Your task to perform on an android device: Open Wikipedia Image 0: 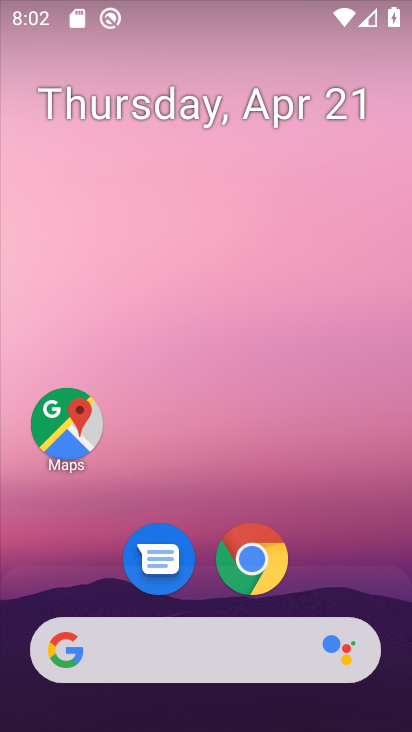
Step 0: click (270, 580)
Your task to perform on an android device: Open Wikipedia Image 1: 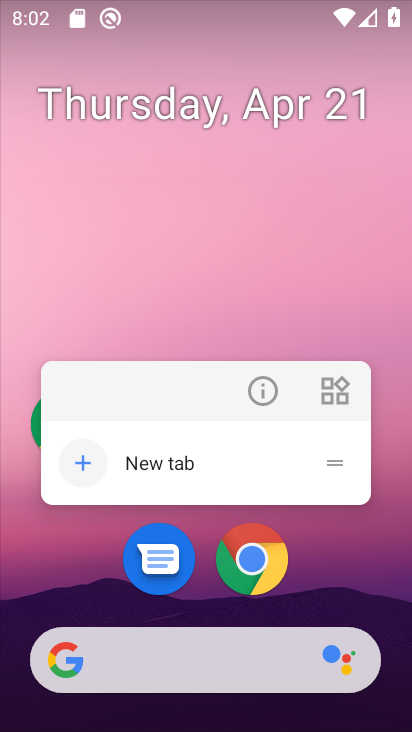
Step 1: click (251, 577)
Your task to perform on an android device: Open Wikipedia Image 2: 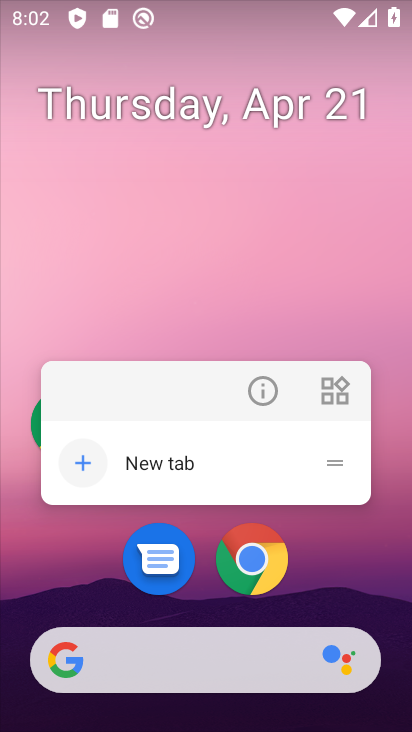
Step 2: click (250, 561)
Your task to perform on an android device: Open Wikipedia Image 3: 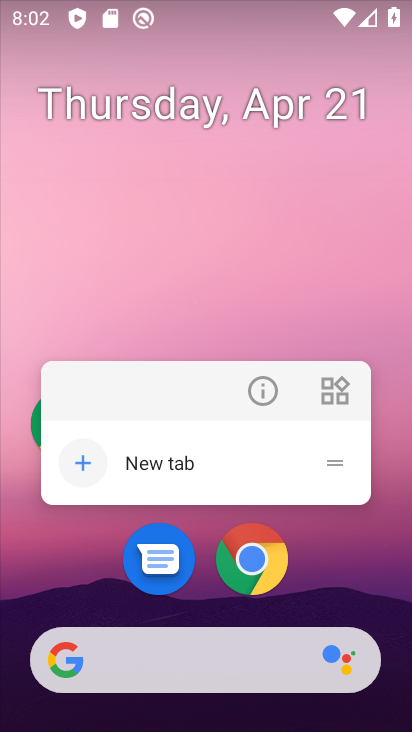
Step 3: click (252, 556)
Your task to perform on an android device: Open Wikipedia Image 4: 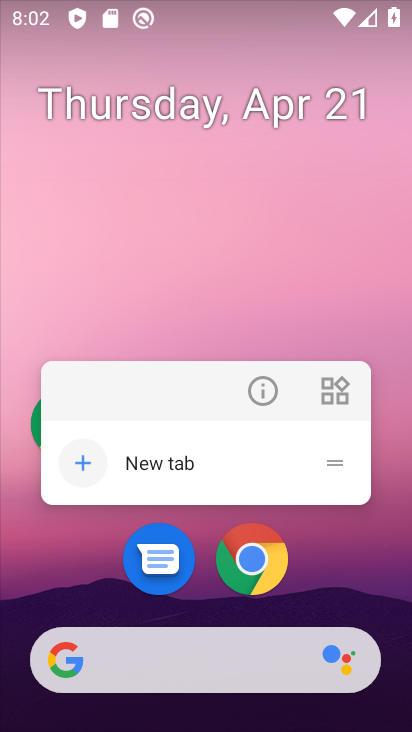
Step 4: click (251, 557)
Your task to perform on an android device: Open Wikipedia Image 5: 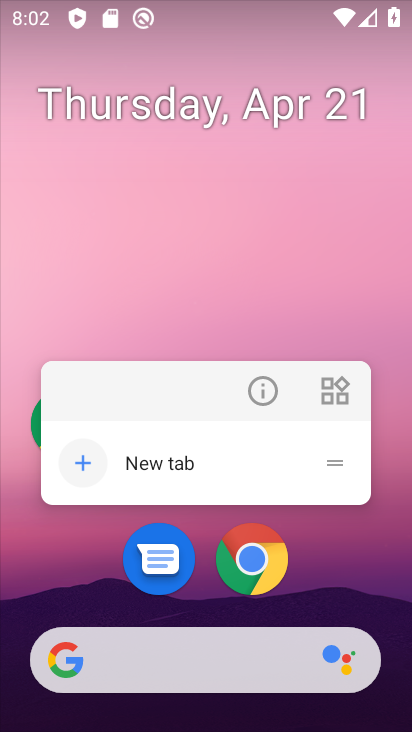
Step 5: click (259, 570)
Your task to perform on an android device: Open Wikipedia Image 6: 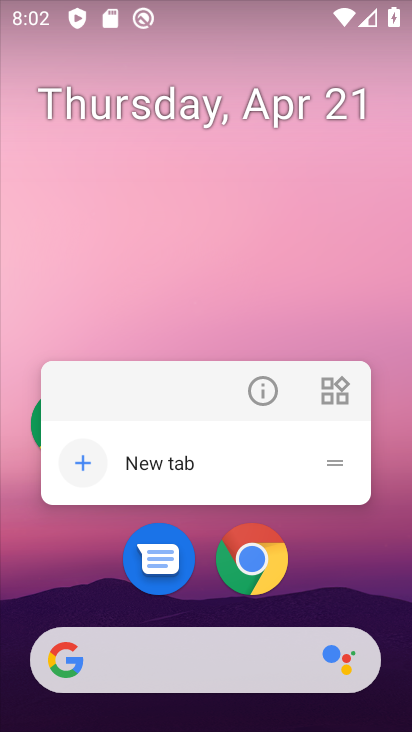
Step 6: click (254, 569)
Your task to perform on an android device: Open Wikipedia Image 7: 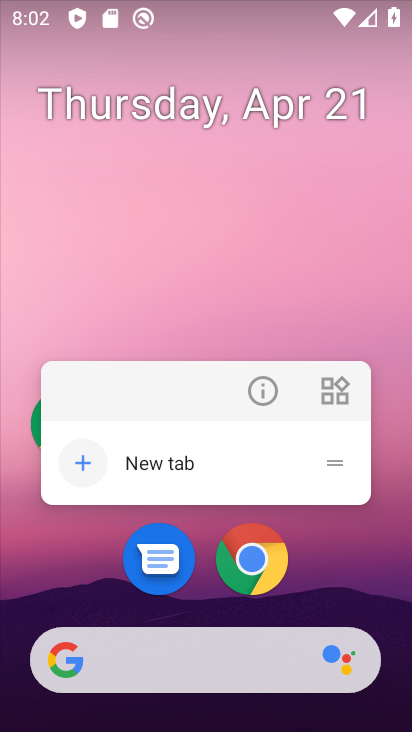
Step 7: click (282, 552)
Your task to perform on an android device: Open Wikipedia Image 8: 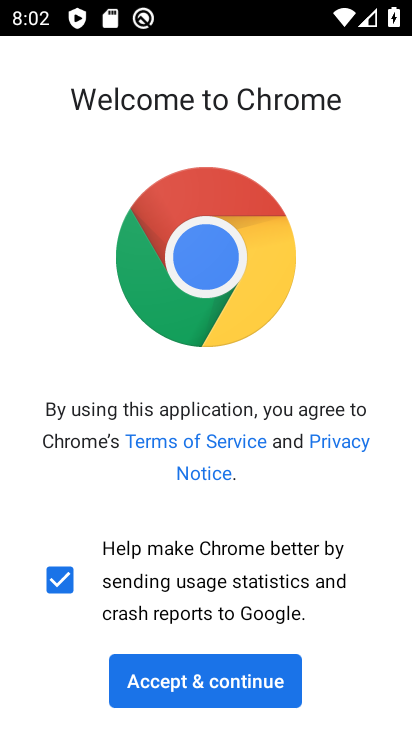
Step 8: click (250, 680)
Your task to perform on an android device: Open Wikipedia Image 9: 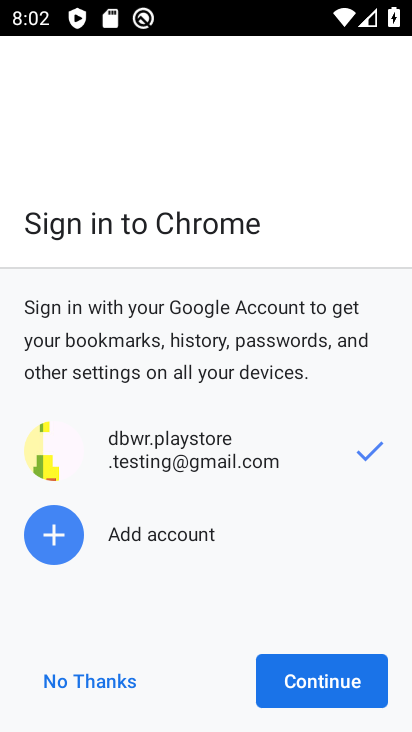
Step 9: click (323, 691)
Your task to perform on an android device: Open Wikipedia Image 10: 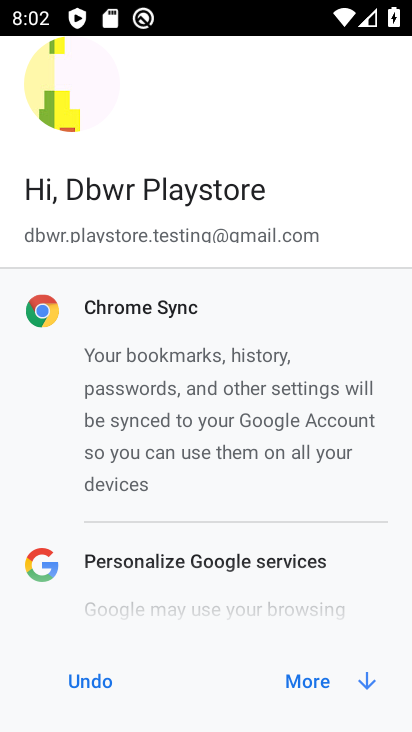
Step 10: click (325, 685)
Your task to perform on an android device: Open Wikipedia Image 11: 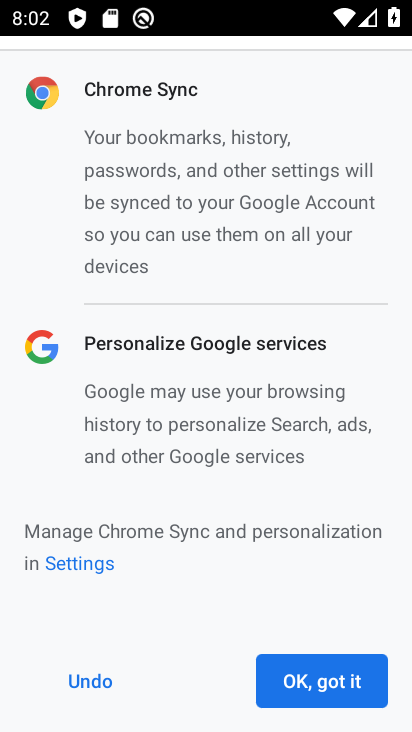
Step 11: click (324, 683)
Your task to perform on an android device: Open Wikipedia Image 12: 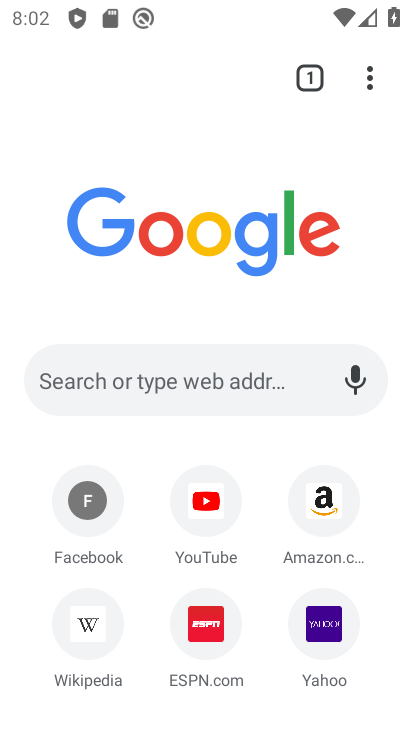
Step 12: task complete